Your task to perform on an android device: Open settings on Google Maps Image 0: 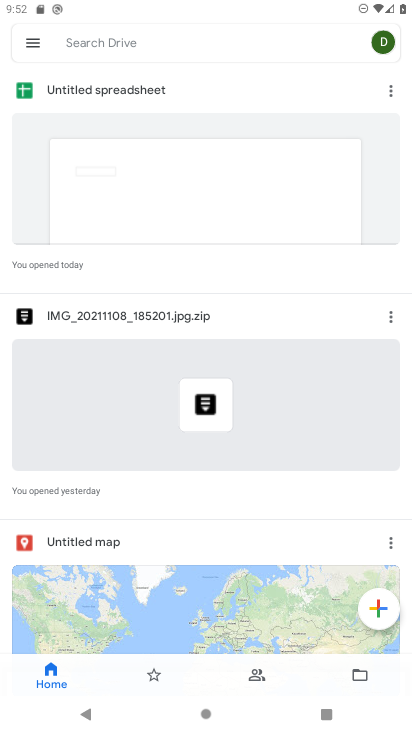
Step 0: press home button
Your task to perform on an android device: Open settings on Google Maps Image 1: 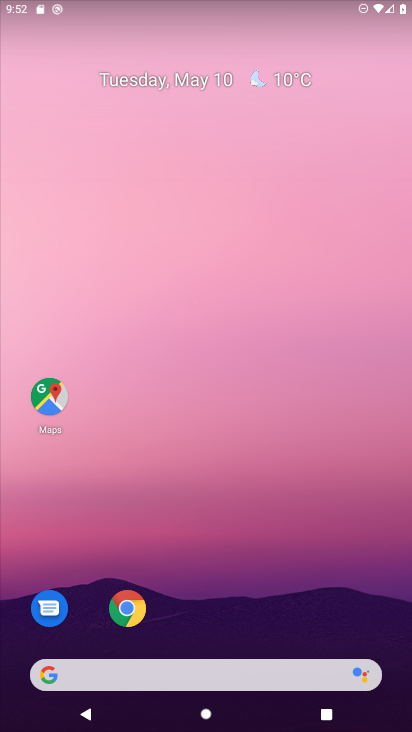
Step 1: drag from (367, 603) to (286, 74)
Your task to perform on an android device: Open settings on Google Maps Image 2: 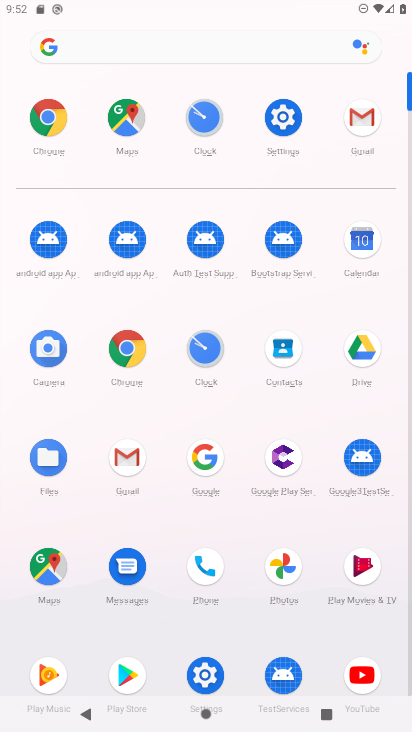
Step 2: click (133, 125)
Your task to perform on an android device: Open settings on Google Maps Image 3: 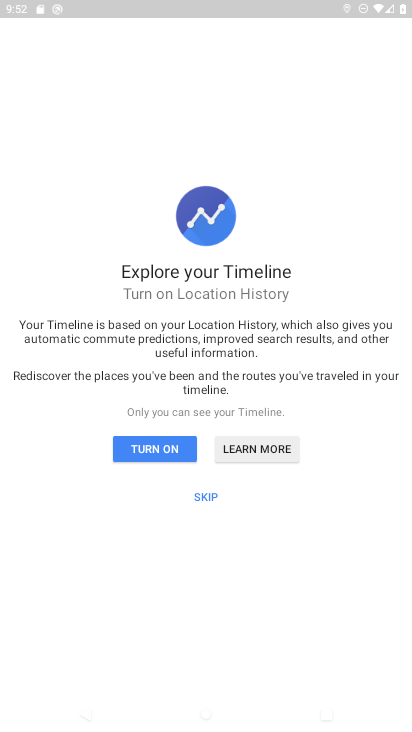
Step 3: press back button
Your task to perform on an android device: Open settings on Google Maps Image 4: 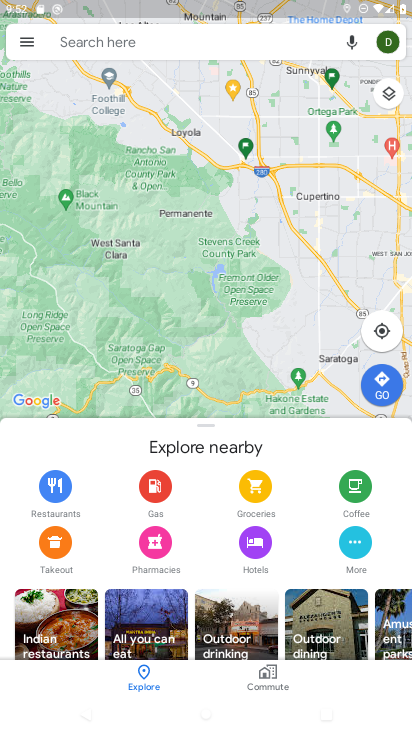
Step 4: click (27, 42)
Your task to perform on an android device: Open settings on Google Maps Image 5: 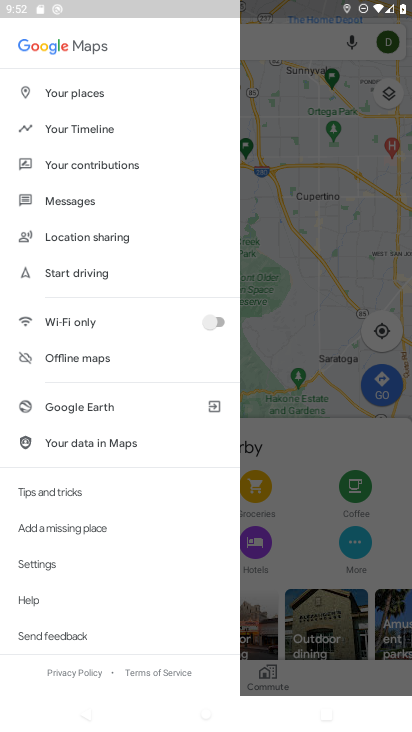
Step 5: click (48, 566)
Your task to perform on an android device: Open settings on Google Maps Image 6: 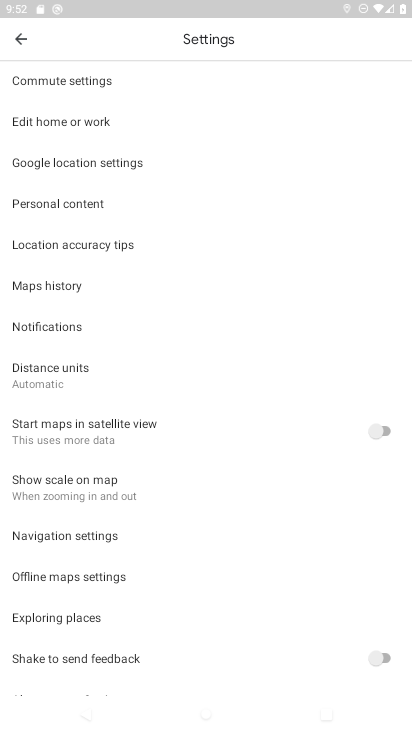
Step 6: task complete